Your task to perform on an android device: Check the news Image 0: 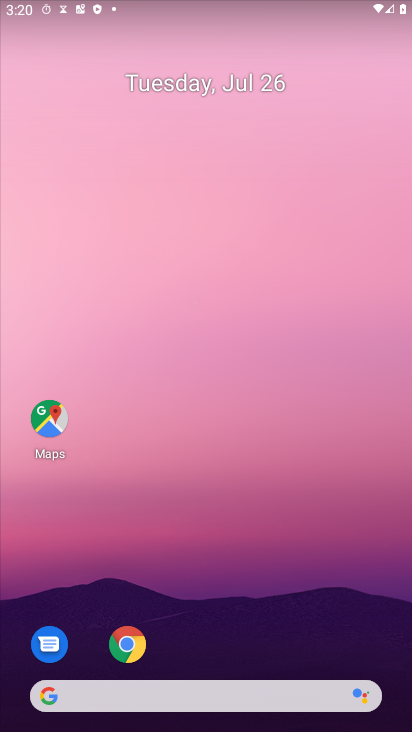
Step 0: press home button
Your task to perform on an android device: Check the news Image 1: 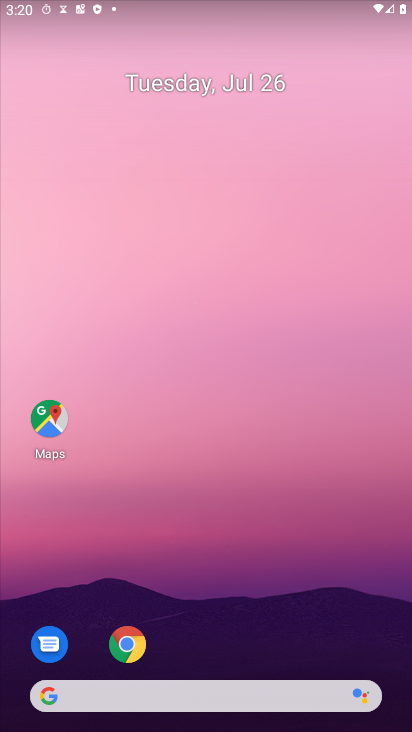
Step 1: click (47, 694)
Your task to perform on an android device: Check the news Image 2: 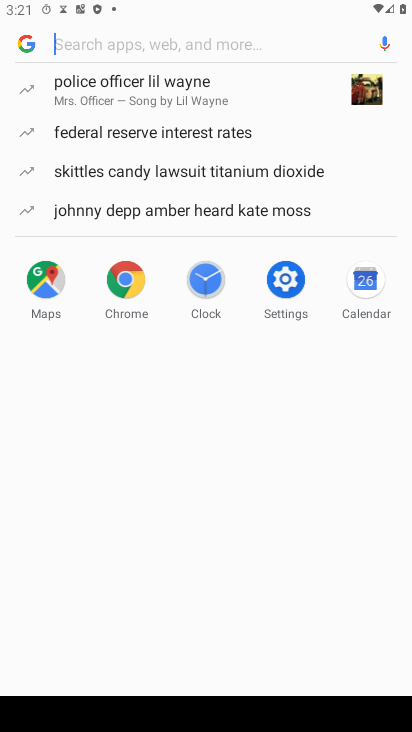
Step 2: type "Check the news"
Your task to perform on an android device: Check the news Image 3: 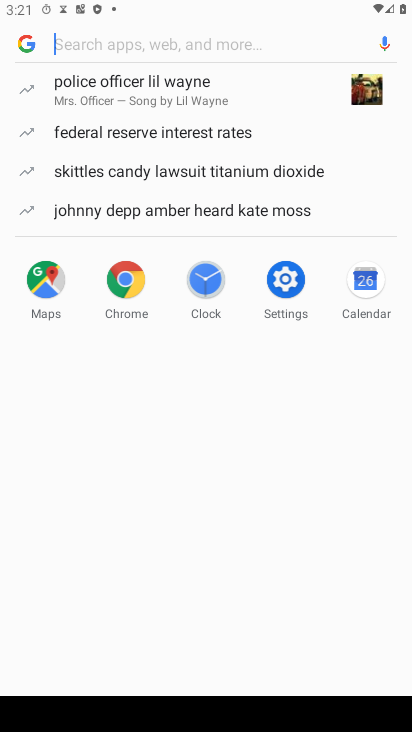
Step 3: click (102, 38)
Your task to perform on an android device: Check the news Image 4: 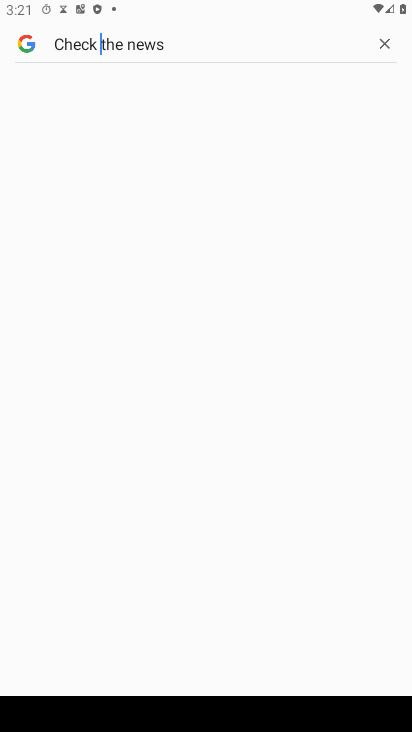
Step 4: press enter
Your task to perform on an android device: Check the news Image 5: 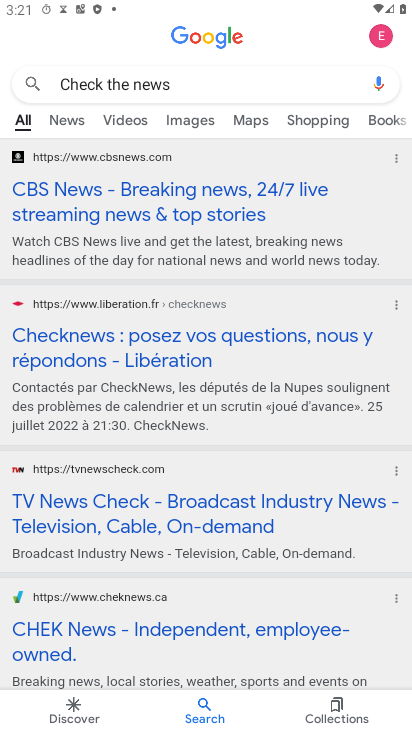
Step 5: task complete